Your task to perform on an android device: allow notifications from all sites in the chrome app Image 0: 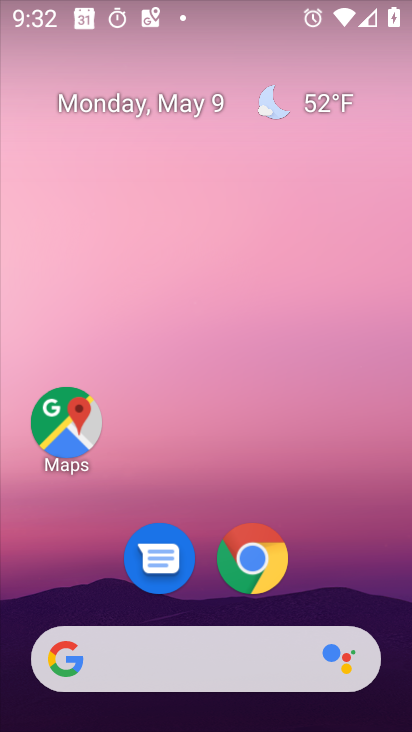
Step 0: click (220, 570)
Your task to perform on an android device: allow notifications from all sites in the chrome app Image 1: 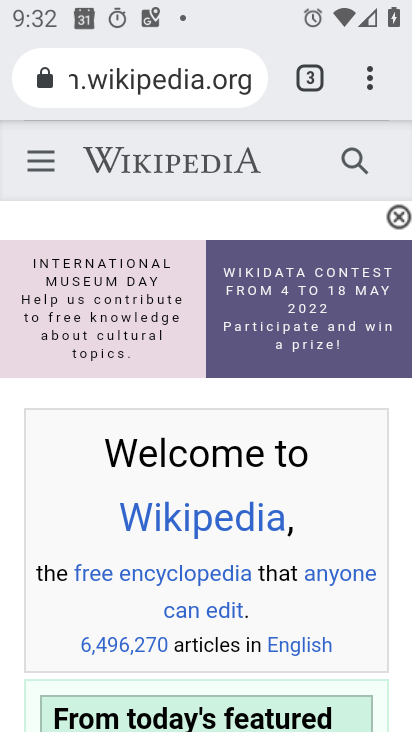
Step 1: click (367, 76)
Your task to perform on an android device: allow notifications from all sites in the chrome app Image 2: 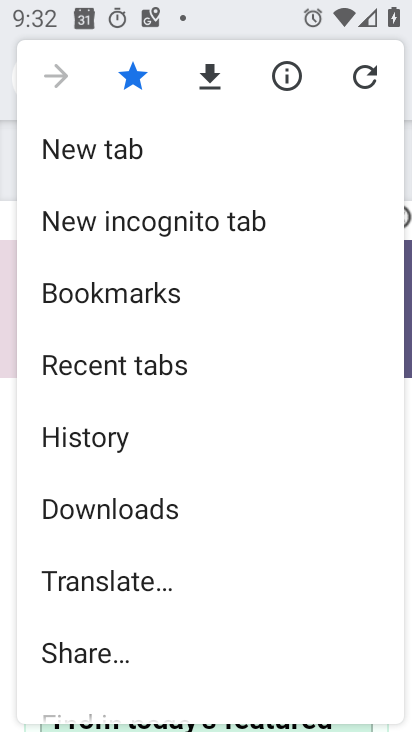
Step 2: drag from (112, 590) to (214, 173)
Your task to perform on an android device: allow notifications from all sites in the chrome app Image 3: 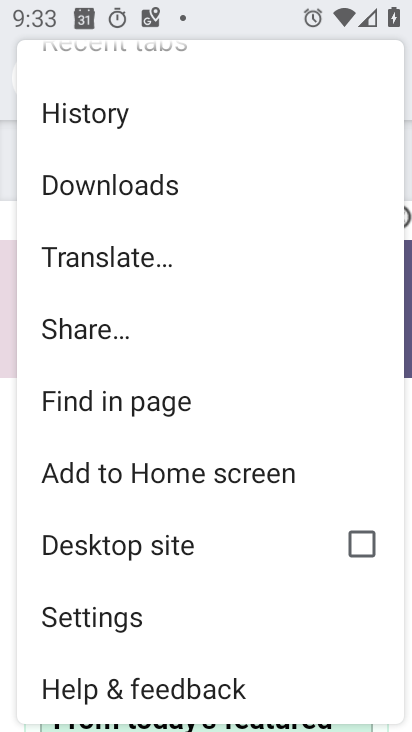
Step 3: click (146, 610)
Your task to perform on an android device: allow notifications from all sites in the chrome app Image 4: 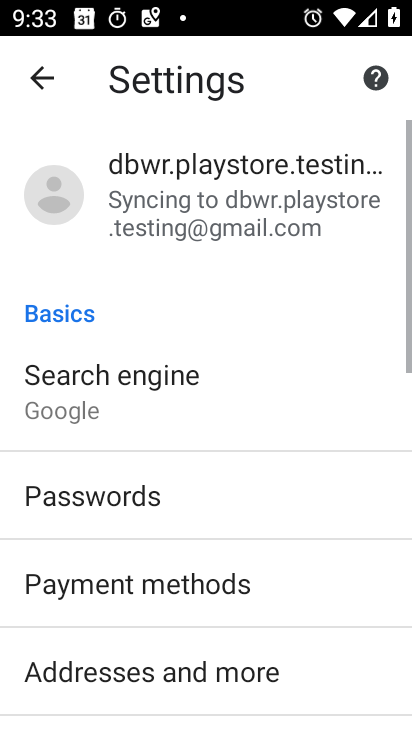
Step 4: drag from (193, 610) to (297, 216)
Your task to perform on an android device: allow notifications from all sites in the chrome app Image 5: 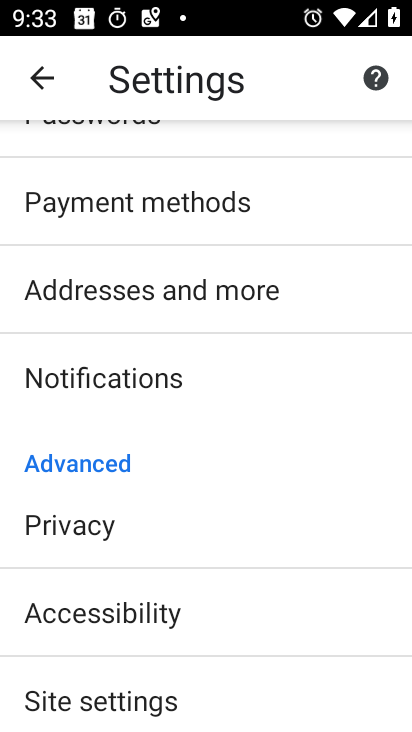
Step 5: click (104, 373)
Your task to perform on an android device: allow notifications from all sites in the chrome app Image 6: 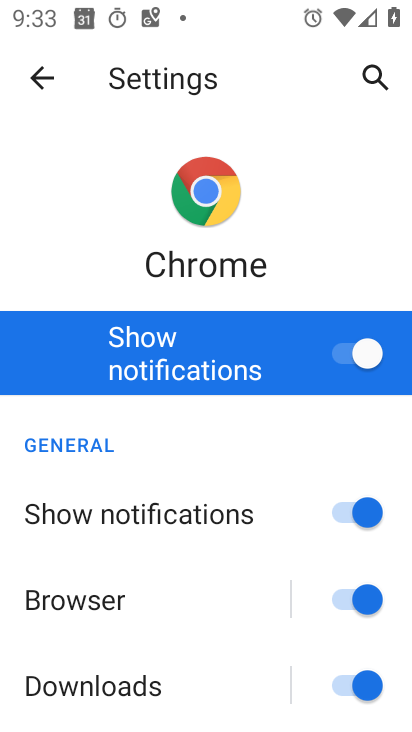
Step 6: task complete